Your task to perform on an android device: change text size in settings app Image 0: 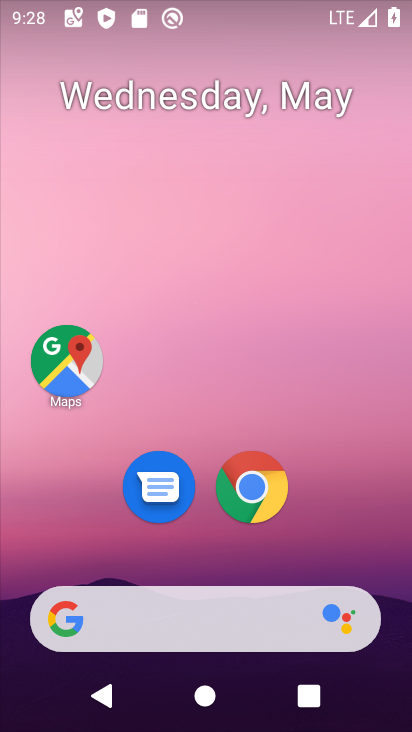
Step 0: drag from (341, 518) to (195, 45)
Your task to perform on an android device: change text size in settings app Image 1: 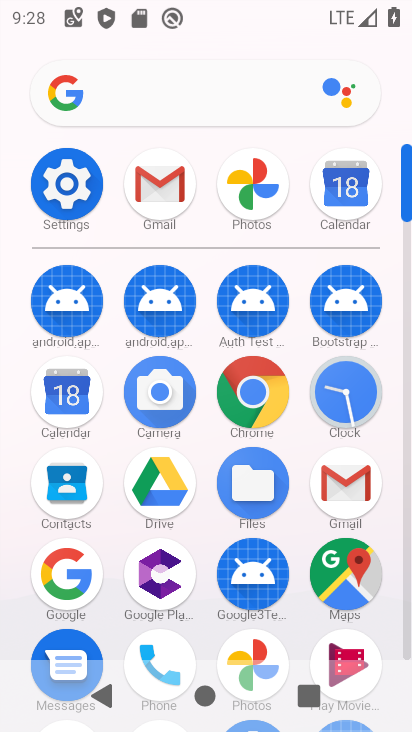
Step 1: click (68, 185)
Your task to perform on an android device: change text size in settings app Image 2: 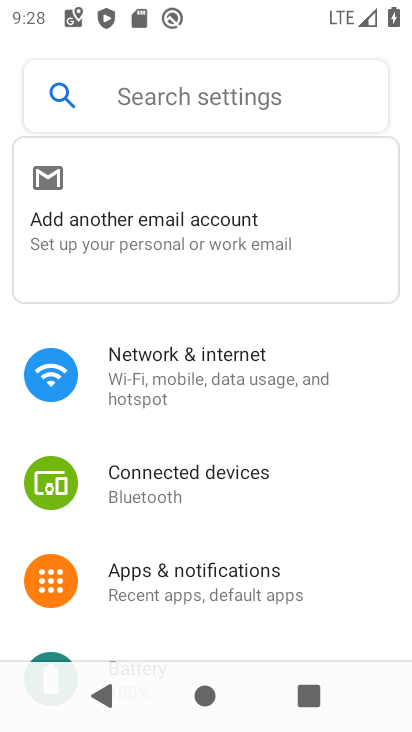
Step 2: drag from (178, 501) to (152, 258)
Your task to perform on an android device: change text size in settings app Image 3: 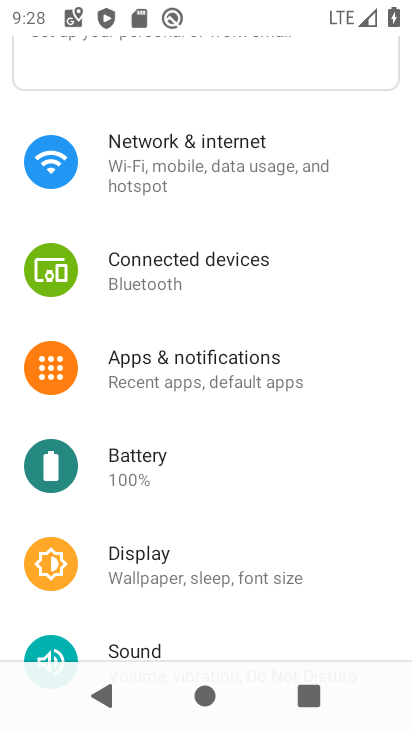
Step 3: click (163, 556)
Your task to perform on an android device: change text size in settings app Image 4: 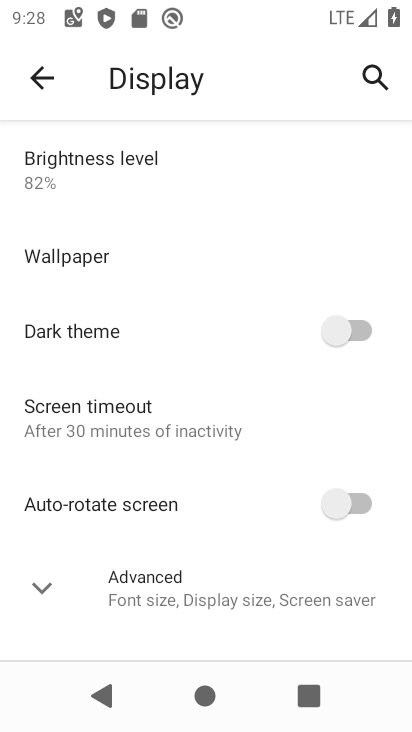
Step 4: drag from (238, 463) to (169, 167)
Your task to perform on an android device: change text size in settings app Image 5: 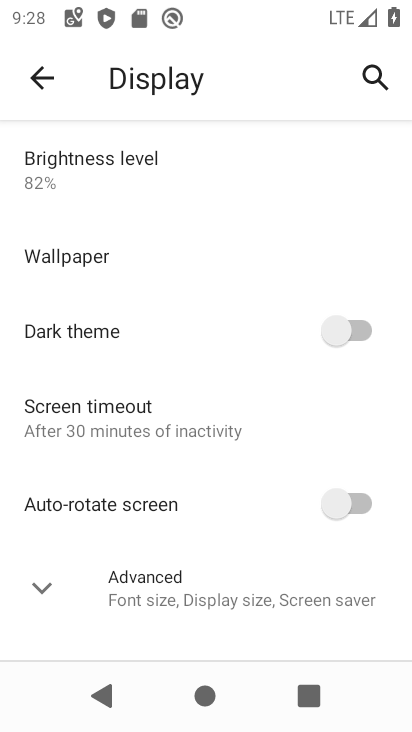
Step 5: click (156, 581)
Your task to perform on an android device: change text size in settings app Image 6: 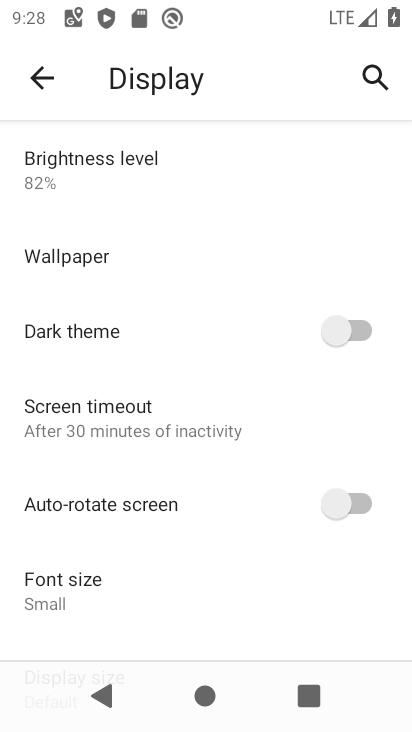
Step 6: click (78, 581)
Your task to perform on an android device: change text size in settings app Image 7: 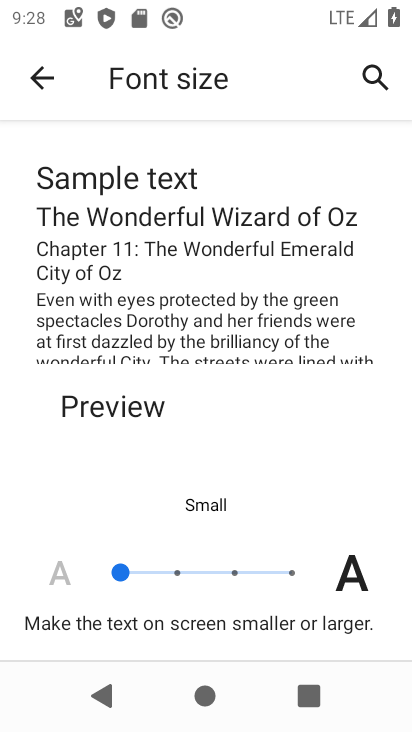
Step 7: click (177, 569)
Your task to perform on an android device: change text size in settings app Image 8: 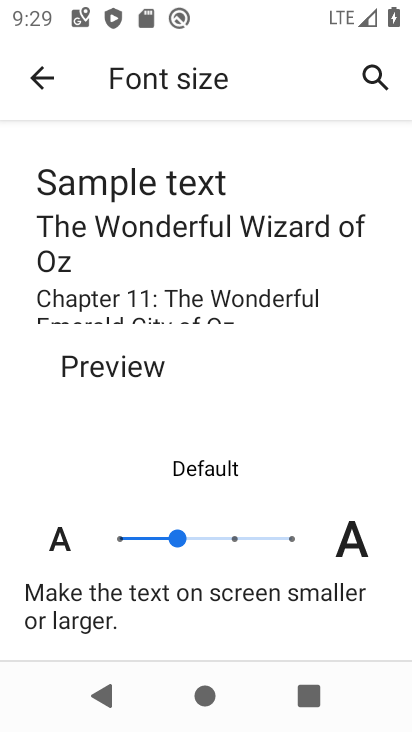
Step 8: task complete